Your task to perform on an android device: When is my next appointment? Image 0: 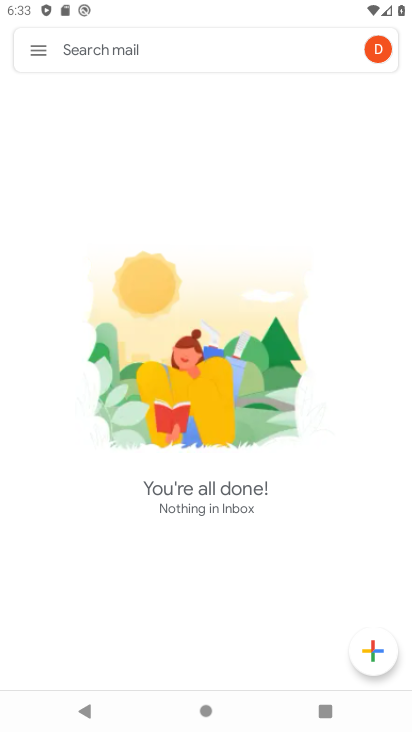
Step 0: press home button
Your task to perform on an android device: When is my next appointment? Image 1: 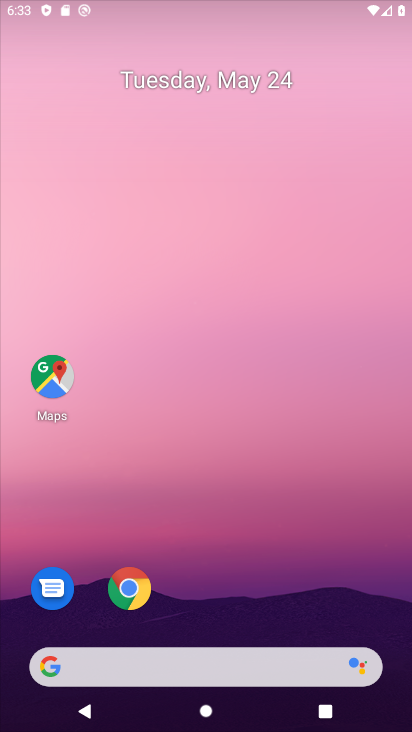
Step 1: drag from (295, 677) to (310, 99)
Your task to perform on an android device: When is my next appointment? Image 2: 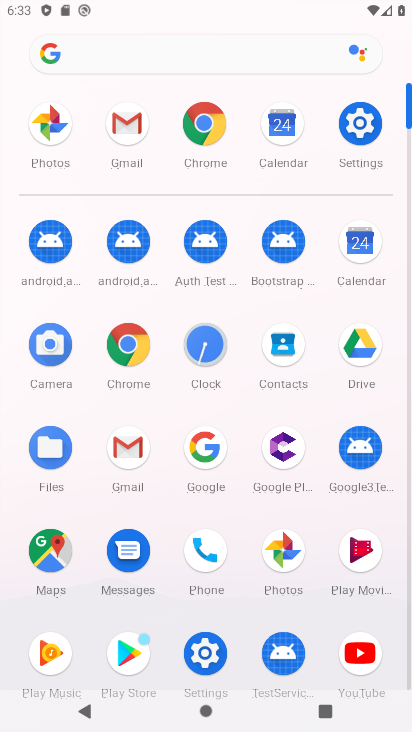
Step 2: click (365, 243)
Your task to perform on an android device: When is my next appointment? Image 3: 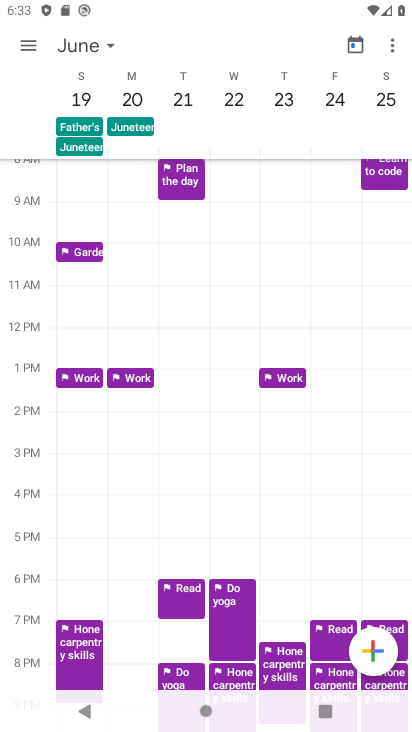
Step 3: click (103, 42)
Your task to perform on an android device: When is my next appointment? Image 4: 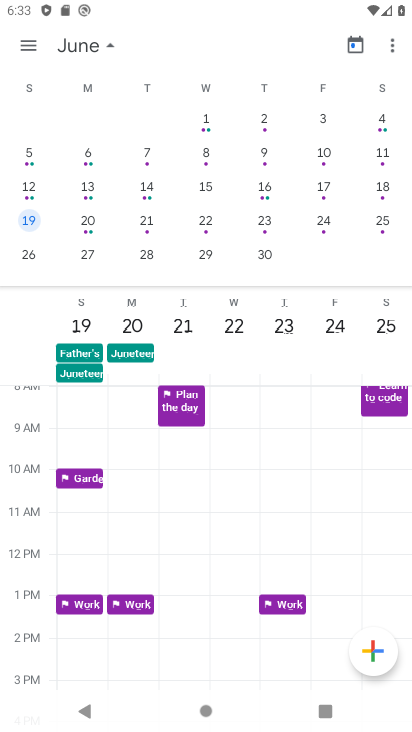
Step 4: drag from (318, 213) to (408, 264)
Your task to perform on an android device: When is my next appointment? Image 5: 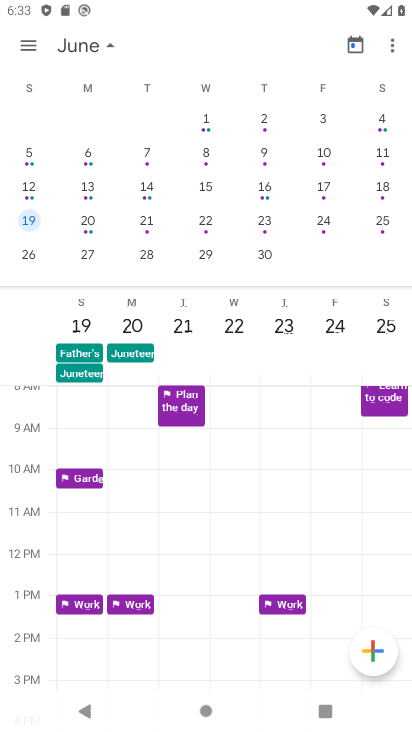
Step 5: drag from (113, 210) to (388, 207)
Your task to perform on an android device: When is my next appointment? Image 6: 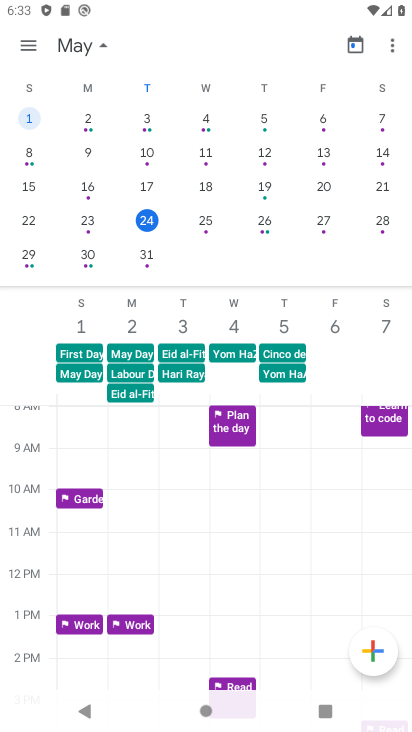
Step 6: click (205, 223)
Your task to perform on an android device: When is my next appointment? Image 7: 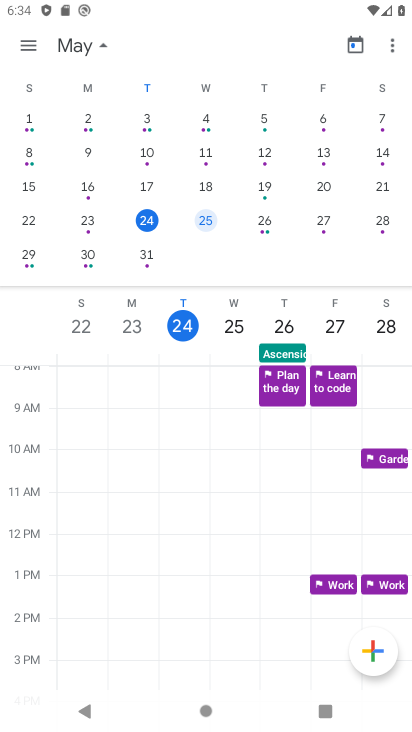
Step 7: task complete